Your task to perform on an android device: open sync settings in chrome Image 0: 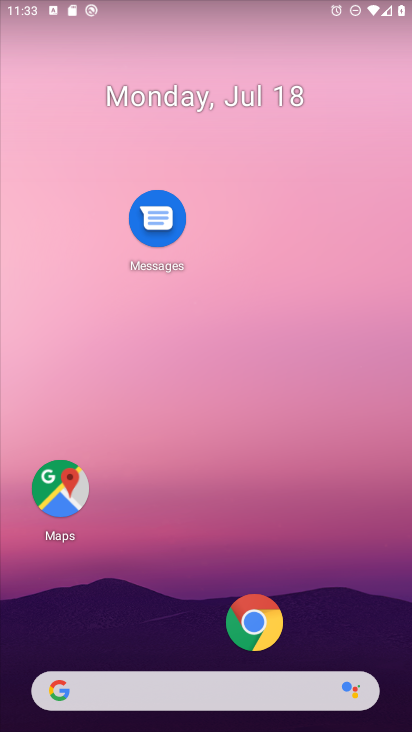
Step 0: drag from (236, 709) to (271, 193)
Your task to perform on an android device: open sync settings in chrome Image 1: 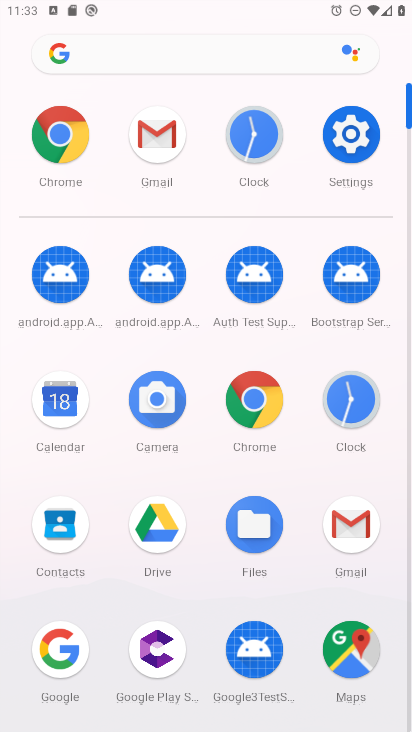
Step 1: click (272, 408)
Your task to perform on an android device: open sync settings in chrome Image 2: 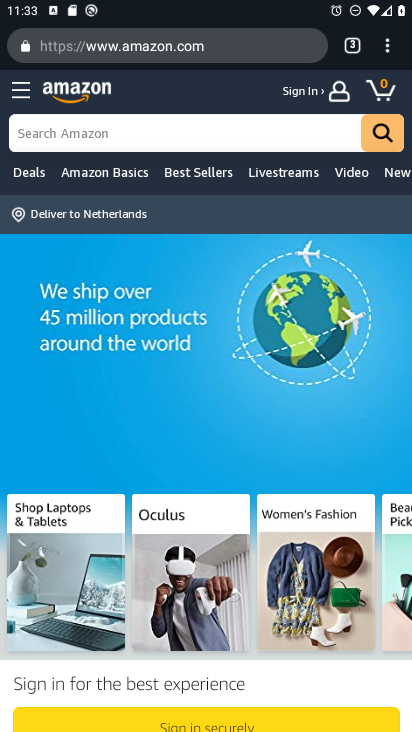
Step 2: click (397, 53)
Your task to perform on an android device: open sync settings in chrome Image 3: 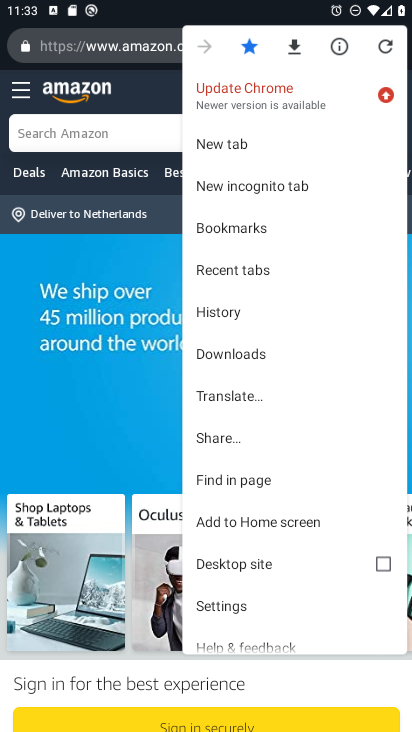
Step 3: click (233, 608)
Your task to perform on an android device: open sync settings in chrome Image 4: 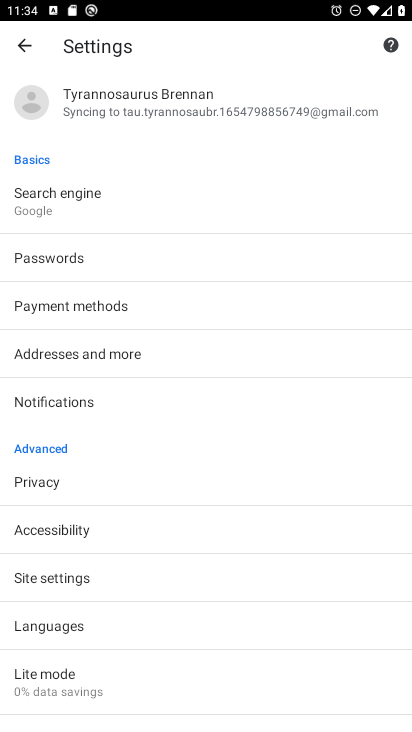
Step 4: click (151, 104)
Your task to perform on an android device: open sync settings in chrome Image 5: 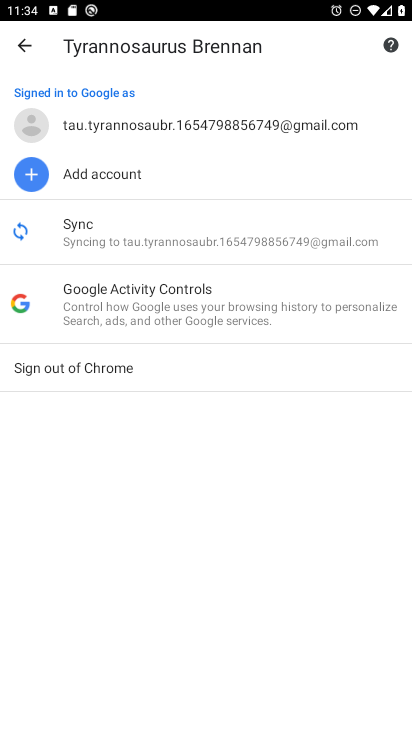
Step 5: click (139, 227)
Your task to perform on an android device: open sync settings in chrome Image 6: 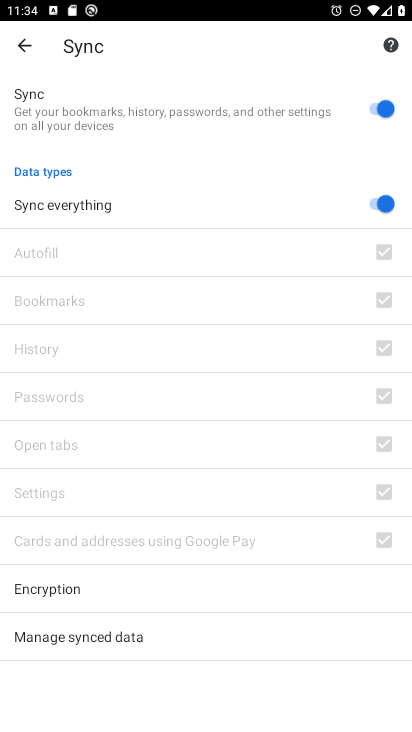
Step 6: task complete